Your task to perform on an android device: delete the emails in spam in the gmail app Image 0: 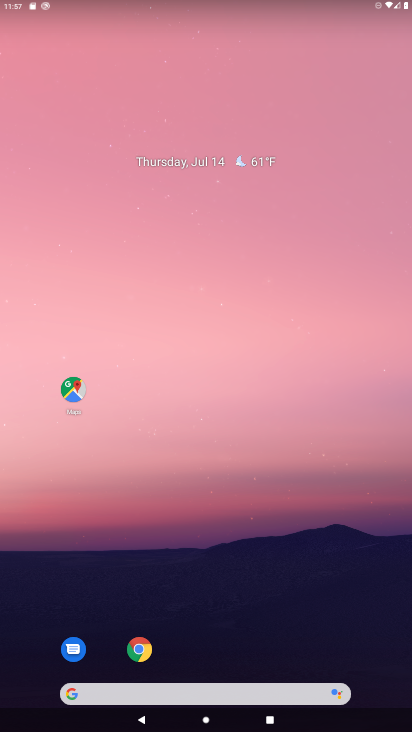
Step 0: drag from (234, 658) to (266, 0)
Your task to perform on an android device: delete the emails in spam in the gmail app Image 1: 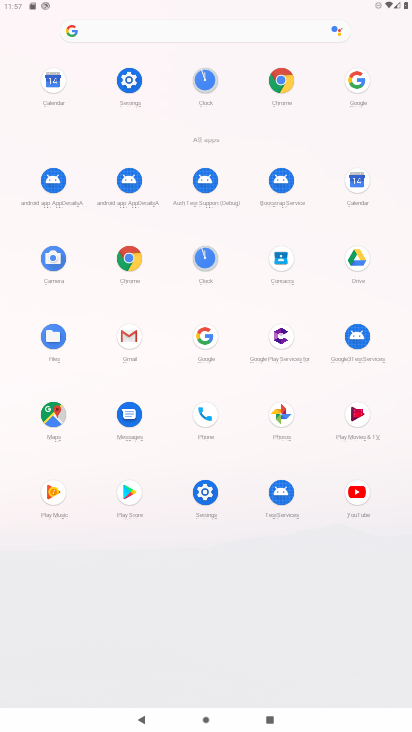
Step 1: click (138, 335)
Your task to perform on an android device: delete the emails in spam in the gmail app Image 2: 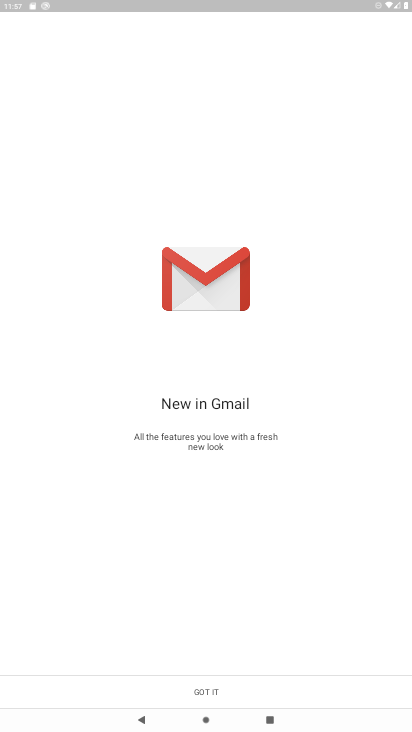
Step 2: click (199, 689)
Your task to perform on an android device: delete the emails in spam in the gmail app Image 3: 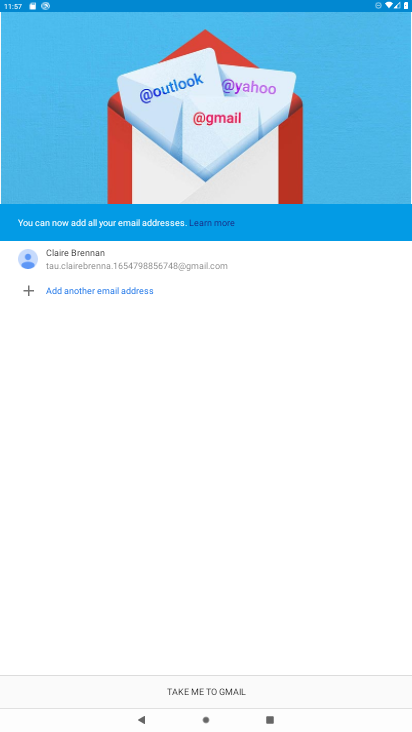
Step 3: click (199, 689)
Your task to perform on an android device: delete the emails in spam in the gmail app Image 4: 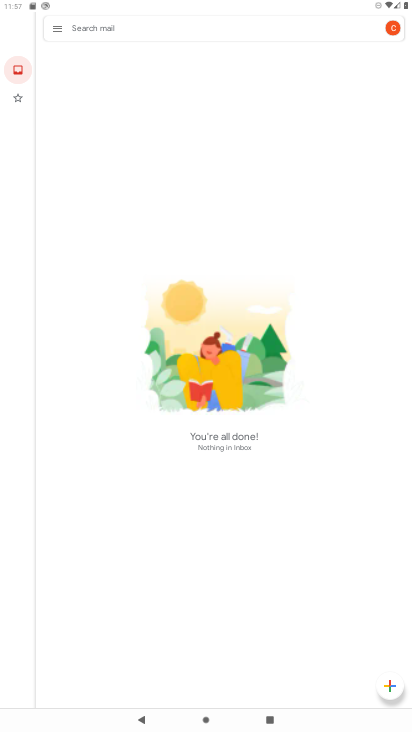
Step 4: click (61, 30)
Your task to perform on an android device: delete the emails in spam in the gmail app Image 5: 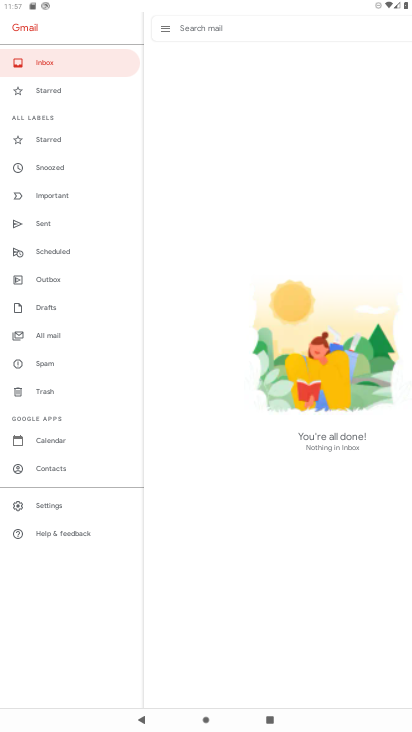
Step 5: click (41, 369)
Your task to perform on an android device: delete the emails in spam in the gmail app Image 6: 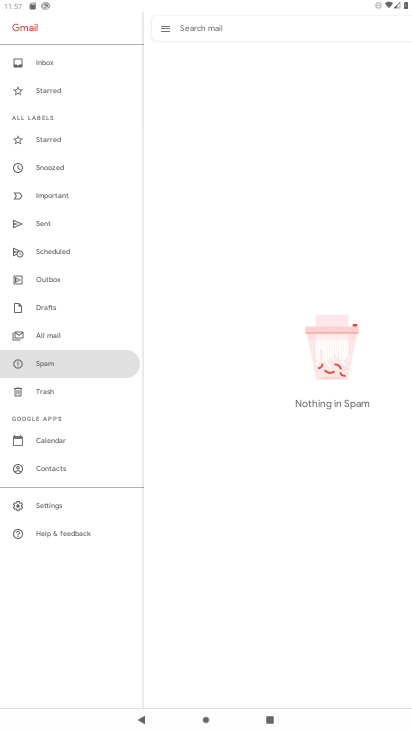
Step 6: task complete